Your task to perform on an android device: Open Yahoo.com Image 0: 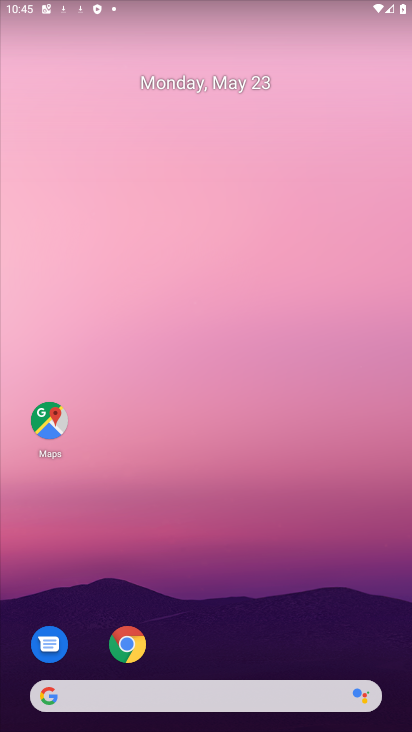
Step 0: drag from (324, 712) to (223, 70)
Your task to perform on an android device: Open Yahoo.com Image 1: 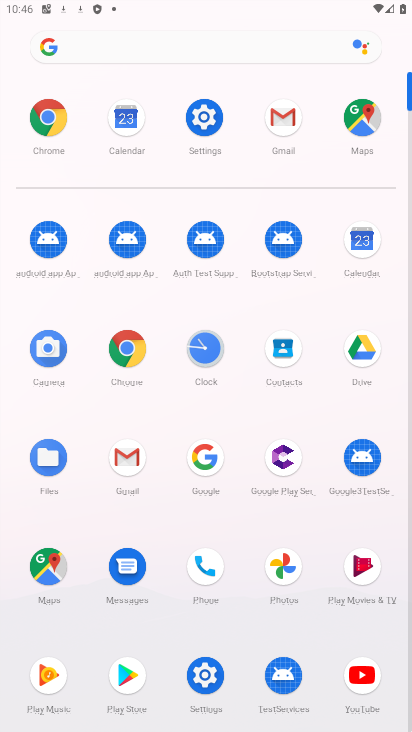
Step 1: click (43, 112)
Your task to perform on an android device: Open Yahoo.com Image 2: 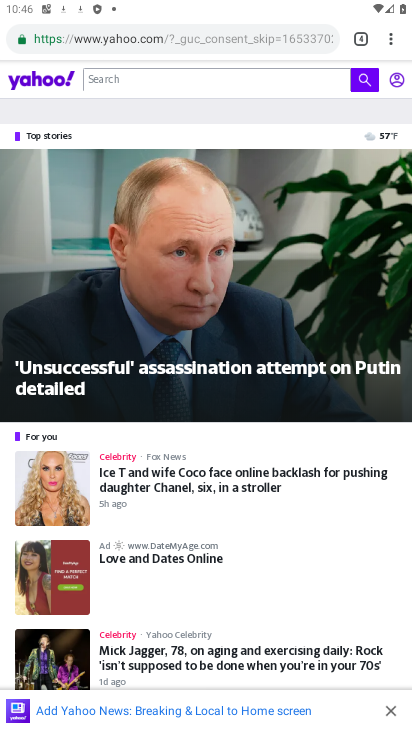
Step 2: click (196, 42)
Your task to perform on an android device: Open Yahoo.com Image 3: 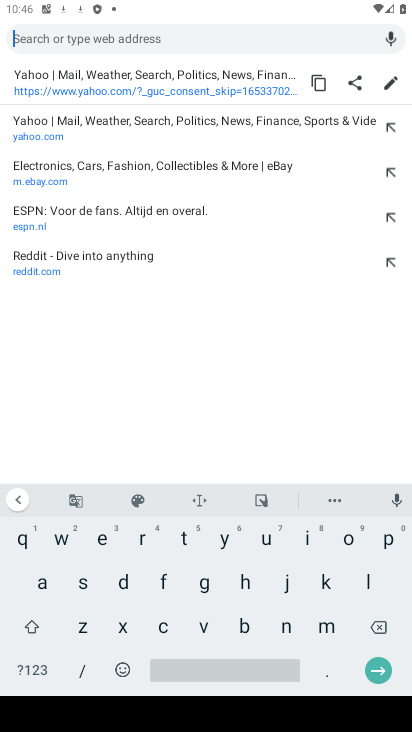
Step 3: click (220, 537)
Your task to perform on an android device: Open Yahoo.com Image 4: 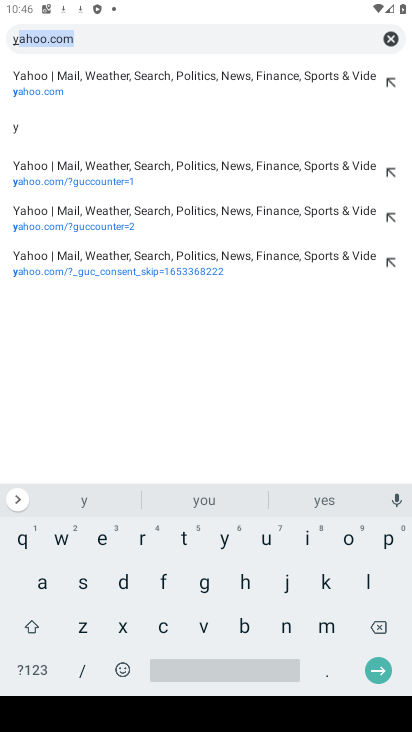
Step 4: click (44, 582)
Your task to perform on an android device: Open Yahoo.com Image 5: 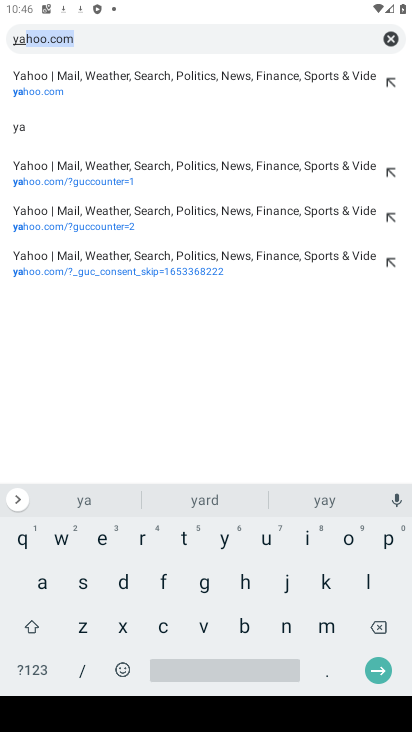
Step 5: click (93, 34)
Your task to perform on an android device: Open Yahoo.com Image 6: 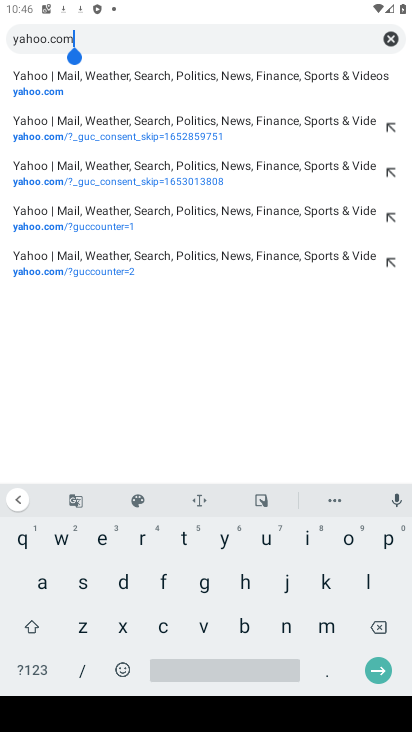
Step 6: click (387, 676)
Your task to perform on an android device: Open Yahoo.com Image 7: 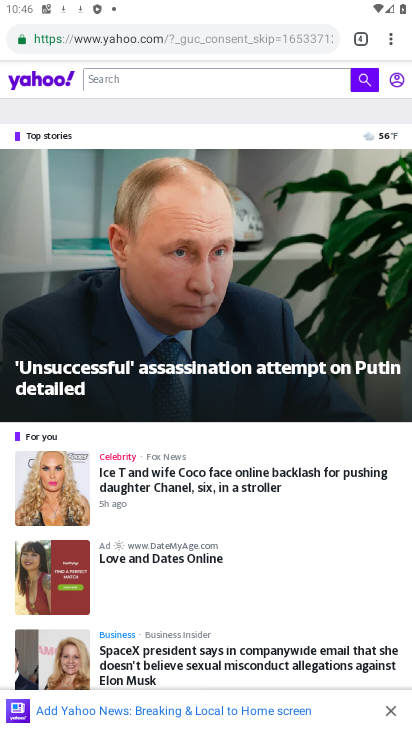
Step 7: task complete